Your task to perform on an android device: stop showing notifications on the lock screen Image 0: 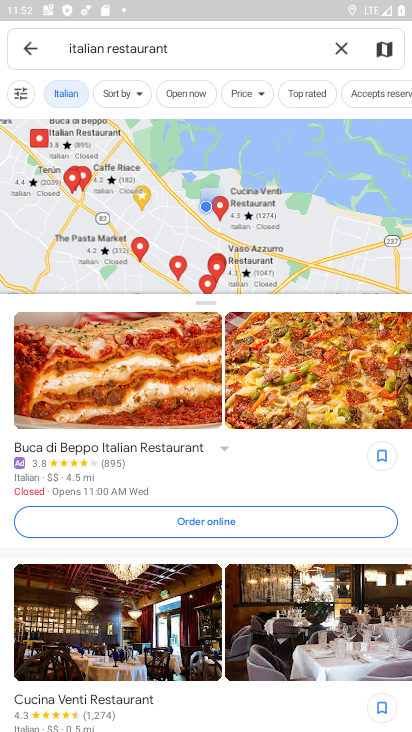
Step 0: press home button
Your task to perform on an android device: stop showing notifications on the lock screen Image 1: 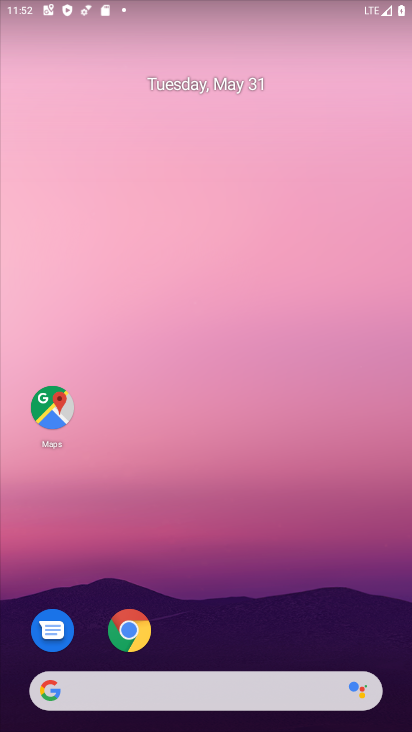
Step 1: drag from (291, 639) to (252, 227)
Your task to perform on an android device: stop showing notifications on the lock screen Image 2: 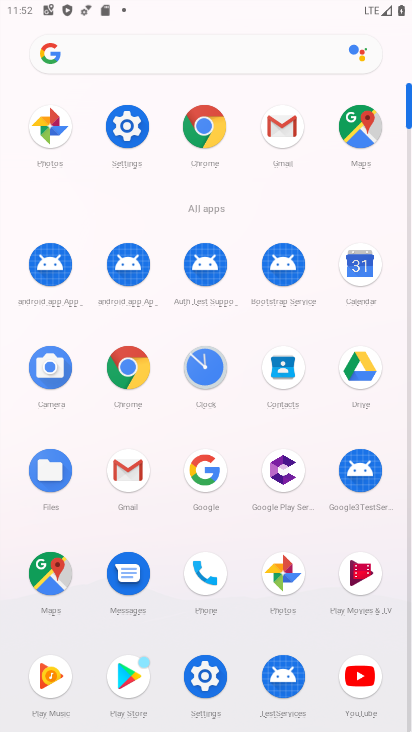
Step 2: click (131, 124)
Your task to perform on an android device: stop showing notifications on the lock screen Image 3: 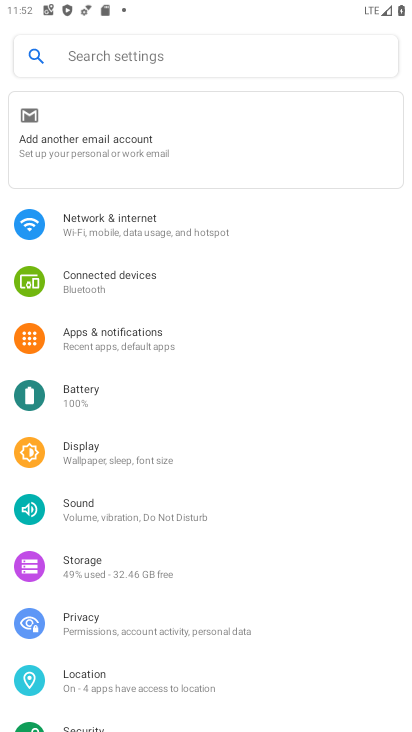
Step 3: click (139, 335)
Your task to perform on an android device: stop showing notifications on the lock screen Image 4: 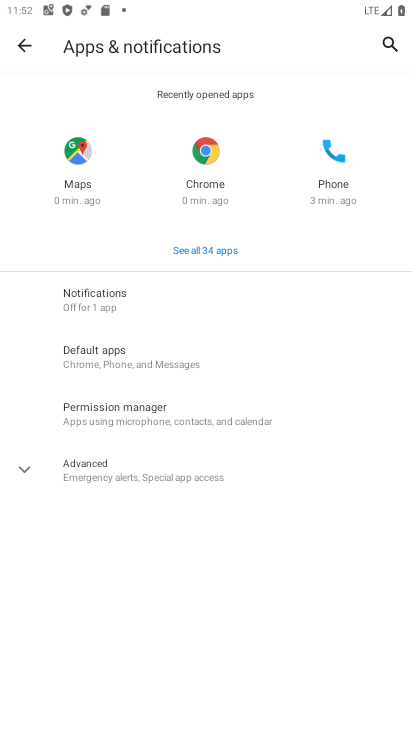
Step 4: click (118, 300)
Your task to perform on an android device: stop showing notifications on the lock screen Image 5: 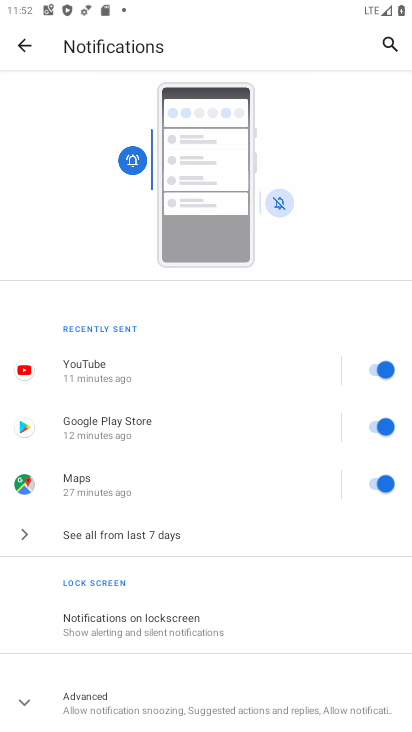
Step 5: click (134, 624)
Your task to perform on an android device: stop showing notifications on the lock screen Image 6: 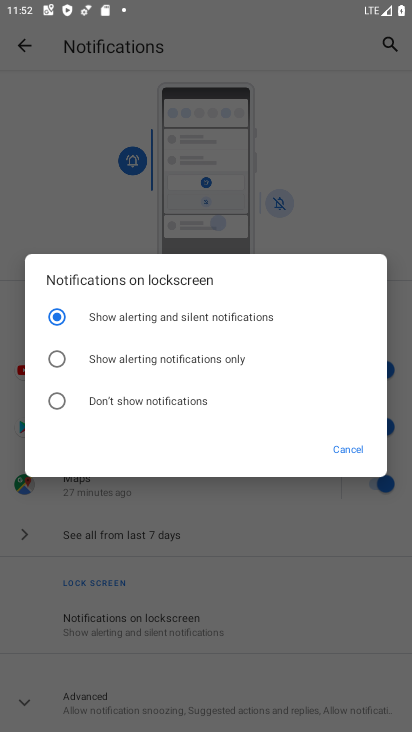
Step 6: click (160, 394)
Your task to perform on an android device: stop showing notifications on the lock screen Image 7: 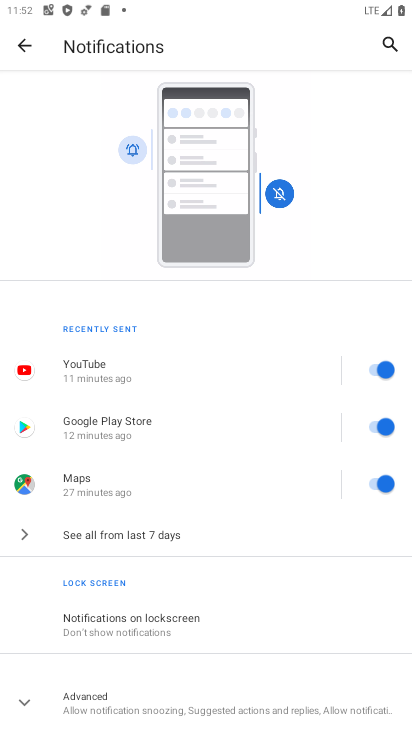
Step 7: task complete